Your task to perform on an android device: Open Youtube and go to the subscriptions tab Image 0: 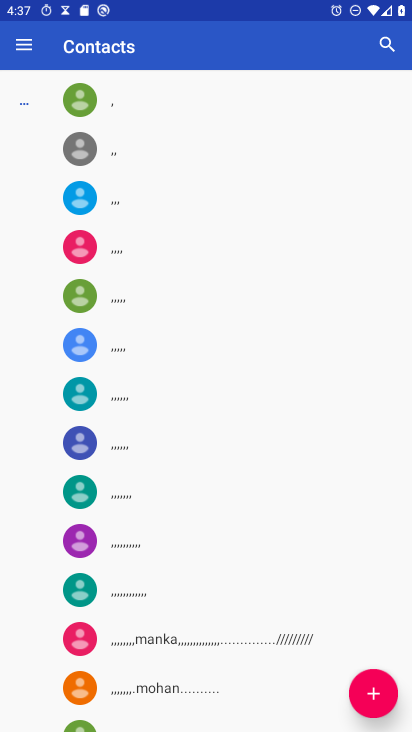
Step 0: press home button
Your task to perform on an android device: Open Youtube and go to the subscriptions tab Image 1: 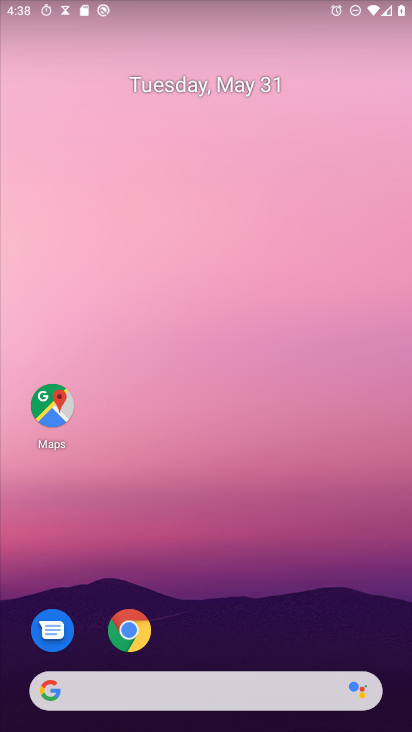
Step 1: press home button
Your task to perform on an android device: Open Youtube and go to the subscriptions tab Image 2: 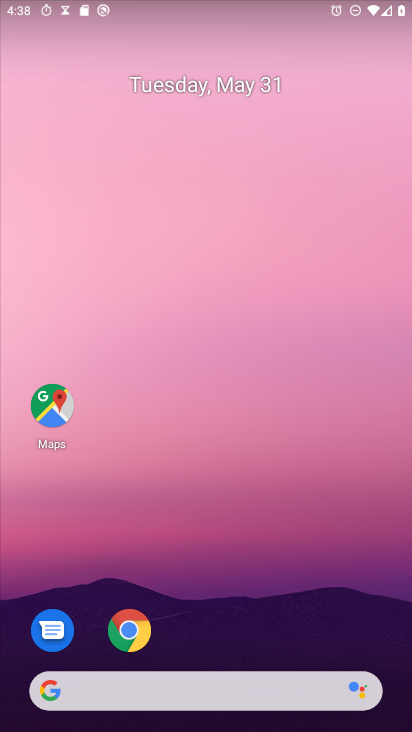
Step 2: drag from (260, 656) to (285, 66)
Your task to perform on an android device: Open Youtube and go to the subscriptions tab Image 3: 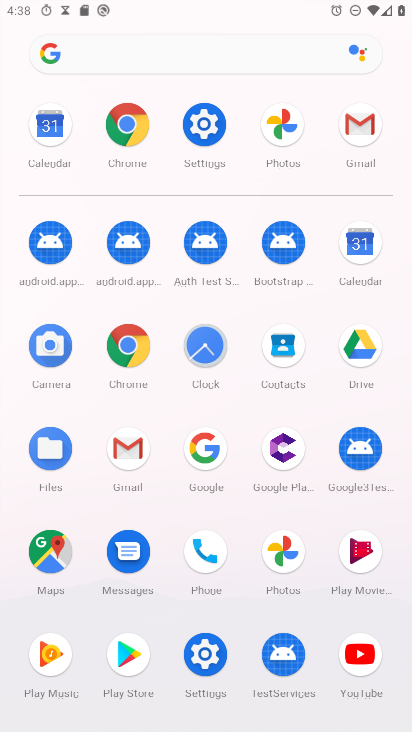
Step 3: click (367, 653)
Your task to perform on an android device: Open Youtube and go to the subscriptions tab Image 4: 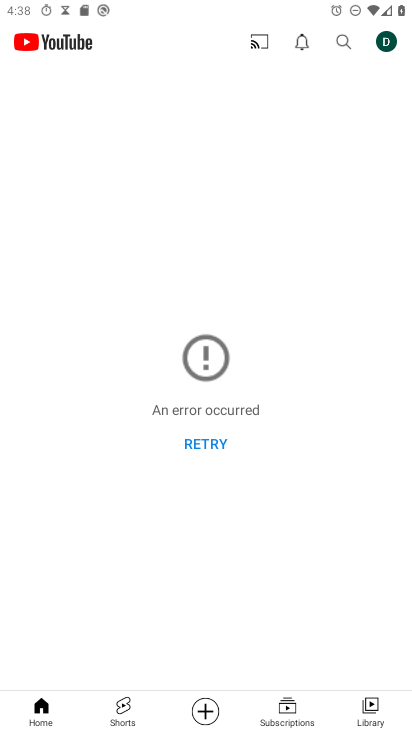
Step 4: click (286, 716)
Your task to perform on an android device: Open Youtube and go to the subscriptions tab Image 5: 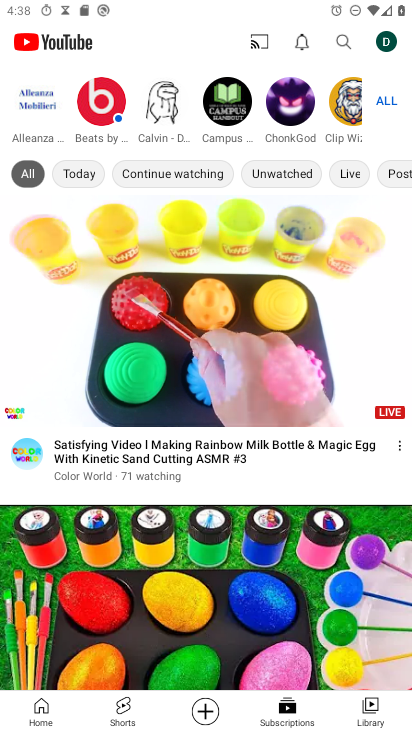
Step 5: click (295, 717)
Your task to perform on an android device: Open Youtube and go to the subscriptions tab Image 6: 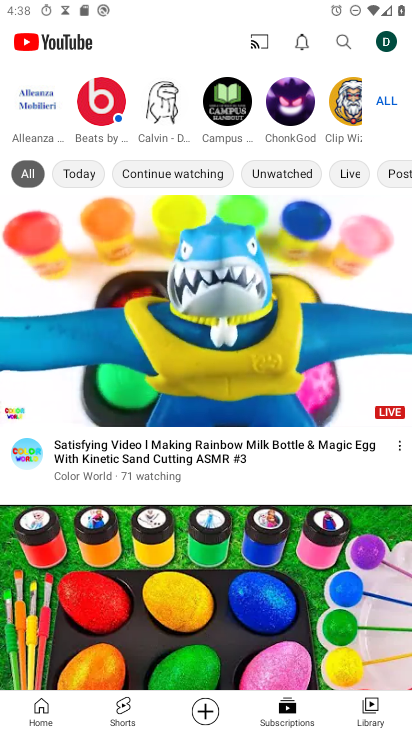
Step 6: click (288, 709)
Your task to perform on an android device: Open Youtube and go to the subscriptions tab Image 7: 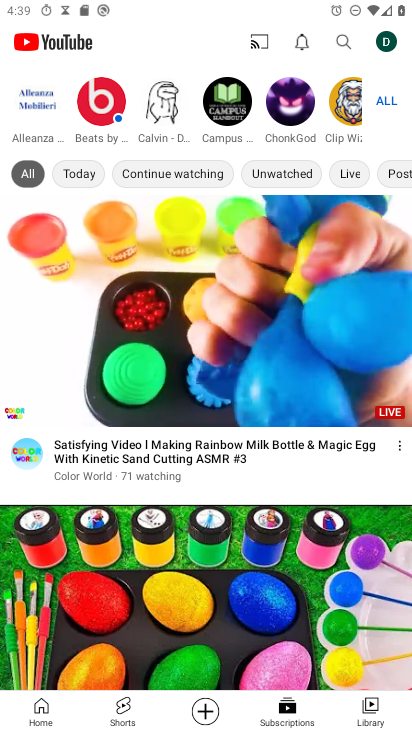
Step 7: click (294, 709)
Your task to perform on an android device: Open Youtube and go to the subscriptions tab Image 8: 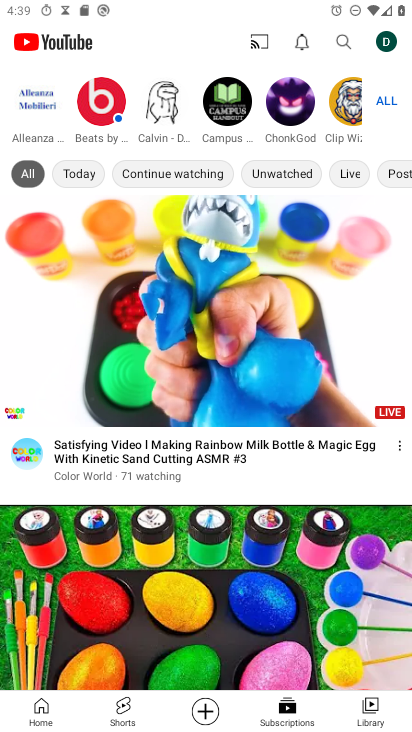
Step 8: task complete